Your task to perform on an android device: turn off sleep mode Image 0: 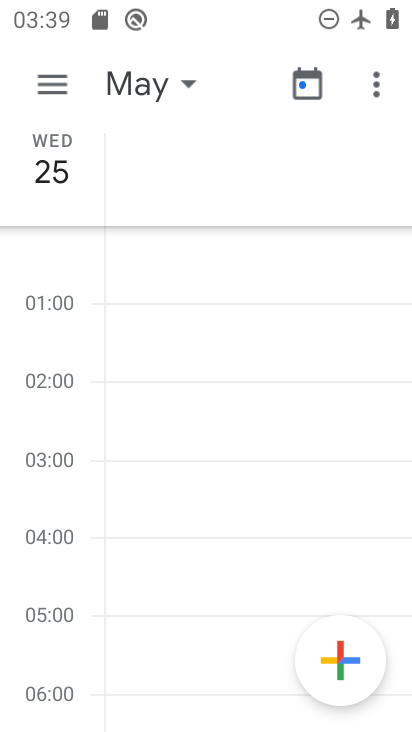
Step 0: press home button
Your task to perform on an android device: turn off sleep mode Image 1: 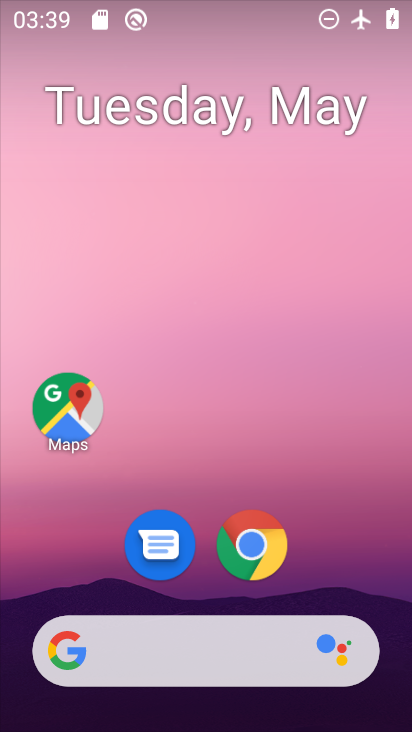
Step 1: drag from (388, 604) to (288, 109)
Your task to perform on an android device: turn off sleep mode Image 2: 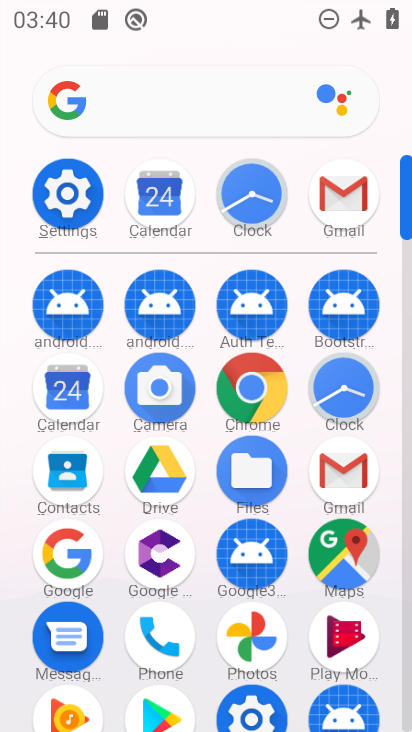
Step 2: click (403, 688)
Your task to perform on an android device: turn off sleep mode Image 3: 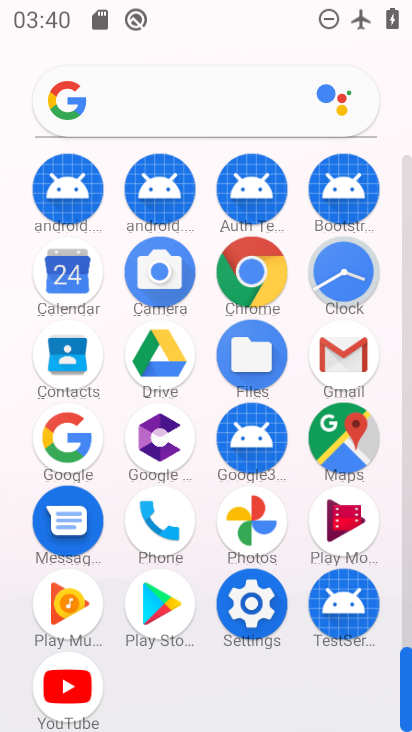
Step 3: click (256, 607)
Your task to perform on an android device: turn off sleep mode Image 4: 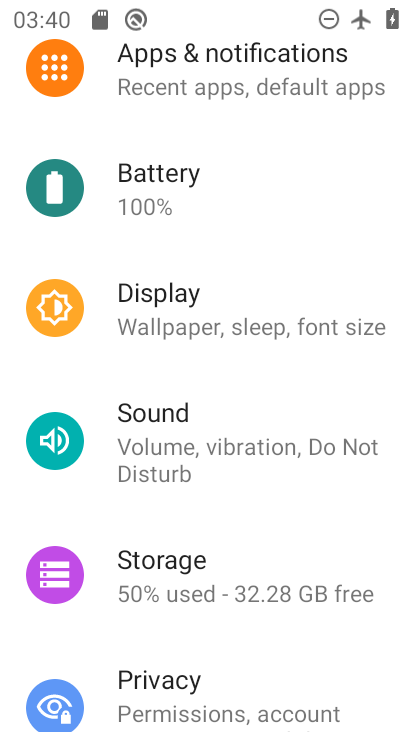
Step 4: click (198, 435)
Your task to perform on an android device: turn off sleep mode Image 5: 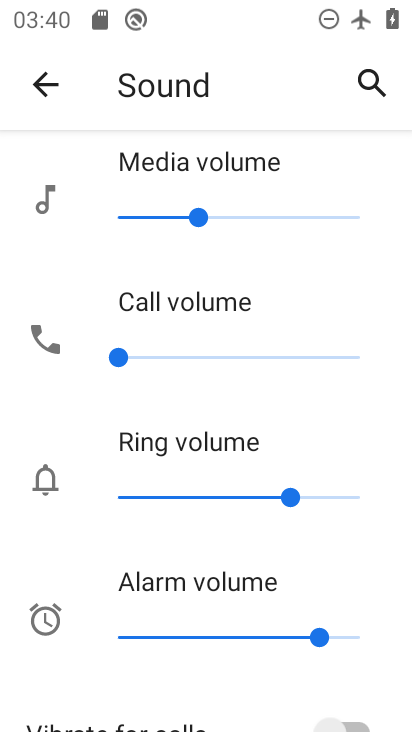
Step 5: drag from (323, 603) to (274, 268)
Your task to perform on an android device: turn off sleep mode Image 6: 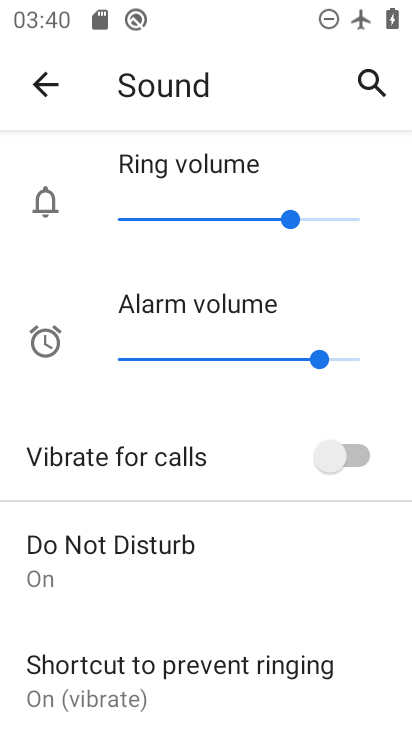
Step 6: drag from (296, 652) to (344, 422)
Your task to perform on an android device: turn off sleep mode Image 7: 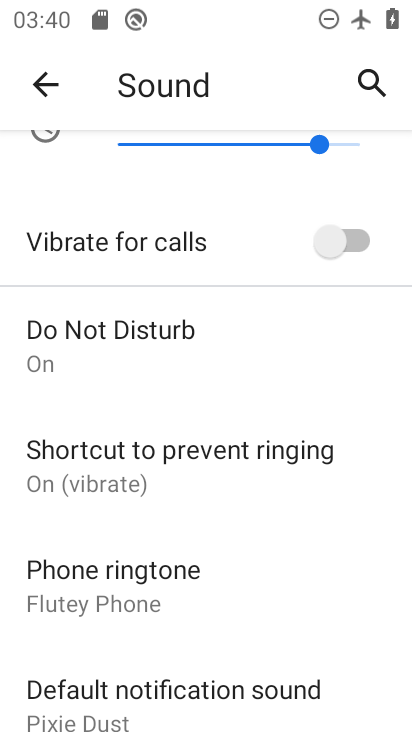
Step 7: press back button
Your task to perform on an android device: turn off sleep mode Image 8: 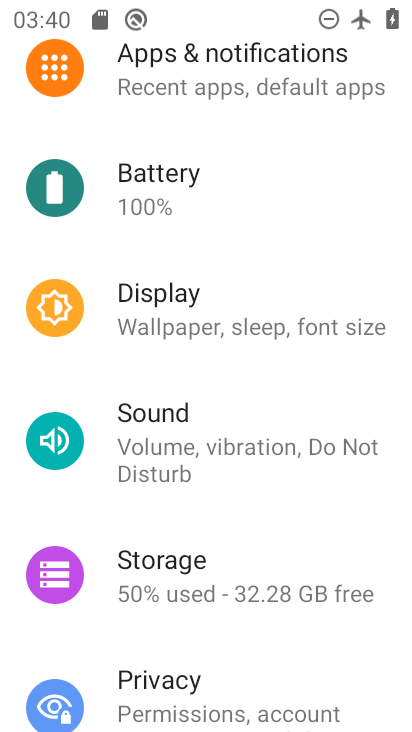
Step 8: click (213, 308)
Your task to perform on an android device: turn off sleep mode Image 9: 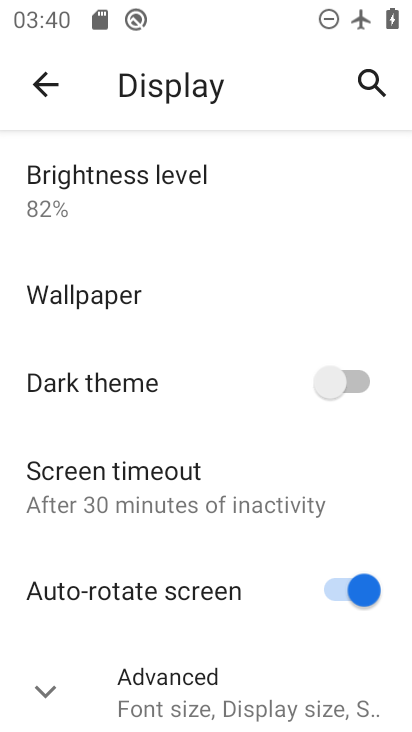
Step 9: task complete